Your task to perform on an android device: Go to Android settings Image 0: 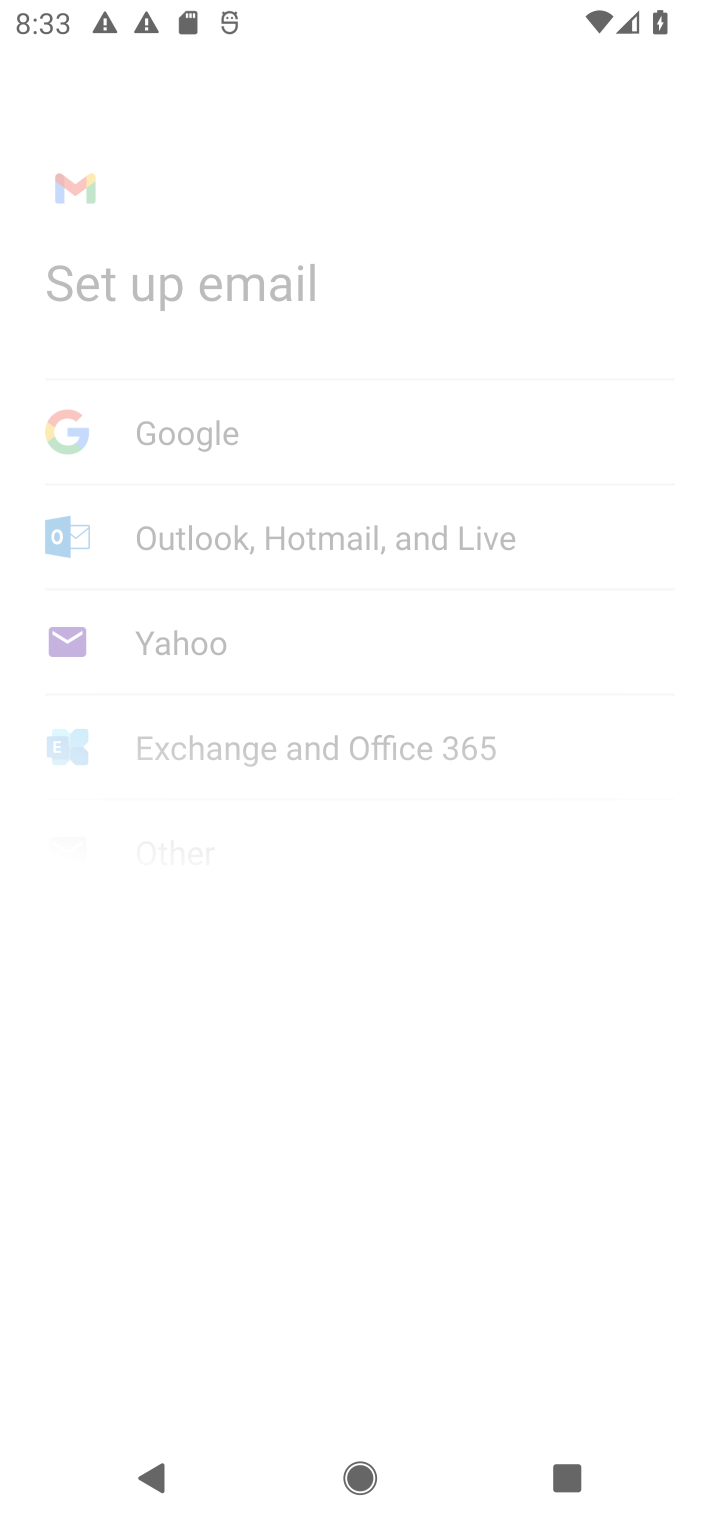
Step 0: press home button
Your task to perform on an android device: Go to Android settings Image 1: 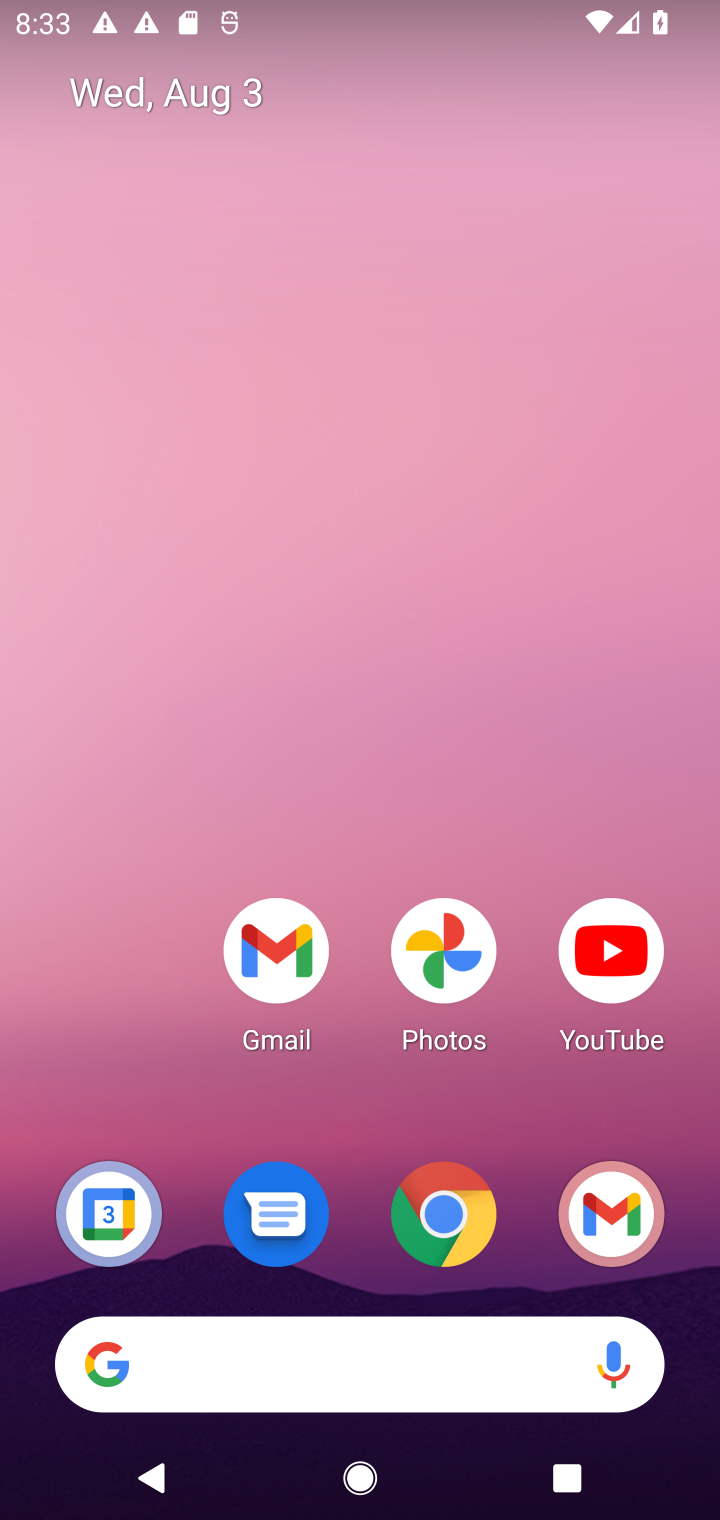
Step 1: drag from (342, 1146) to (269, 0)
Your task to perform on an android device: Go to Android settings Image 2: 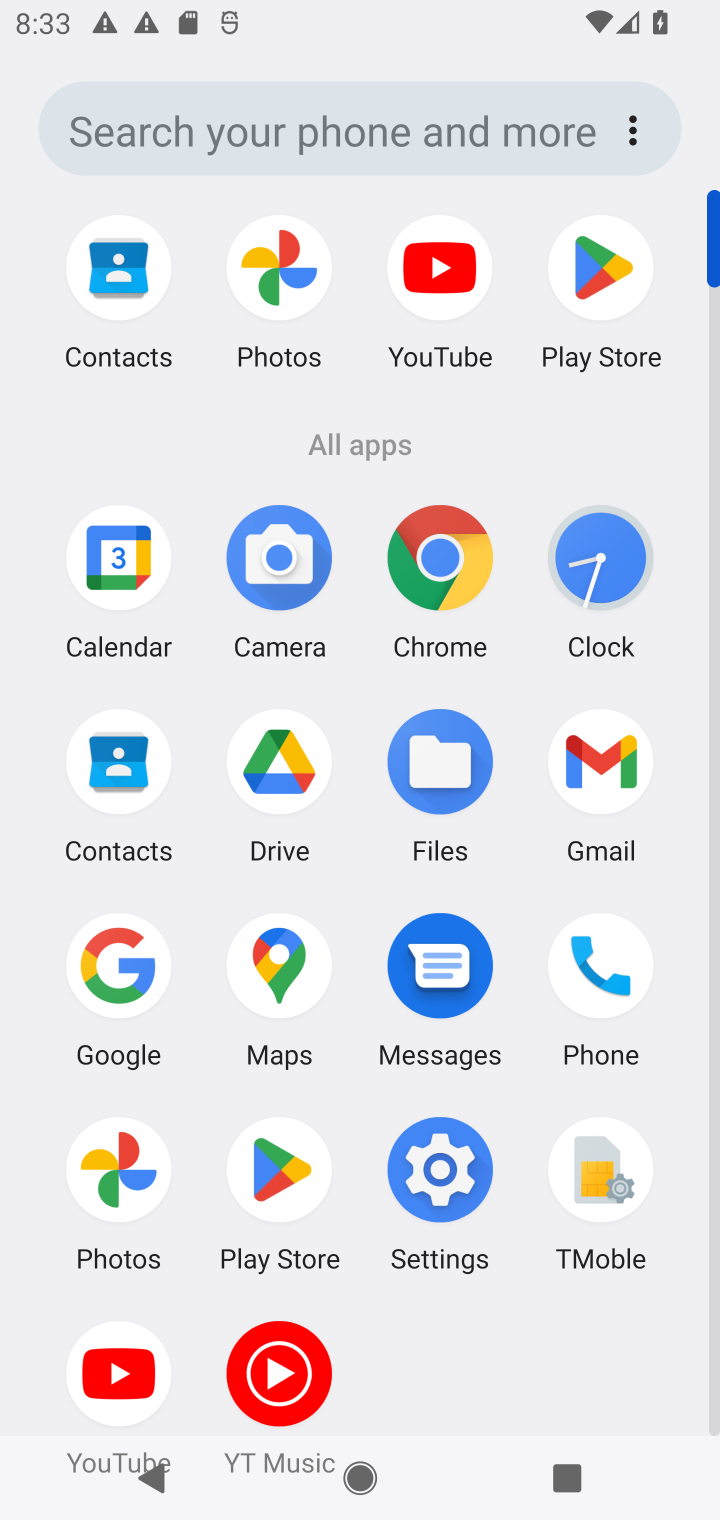
Step 2: click (430, 1180)
Your task to perform on an android device: Go to Android settings Image 3: 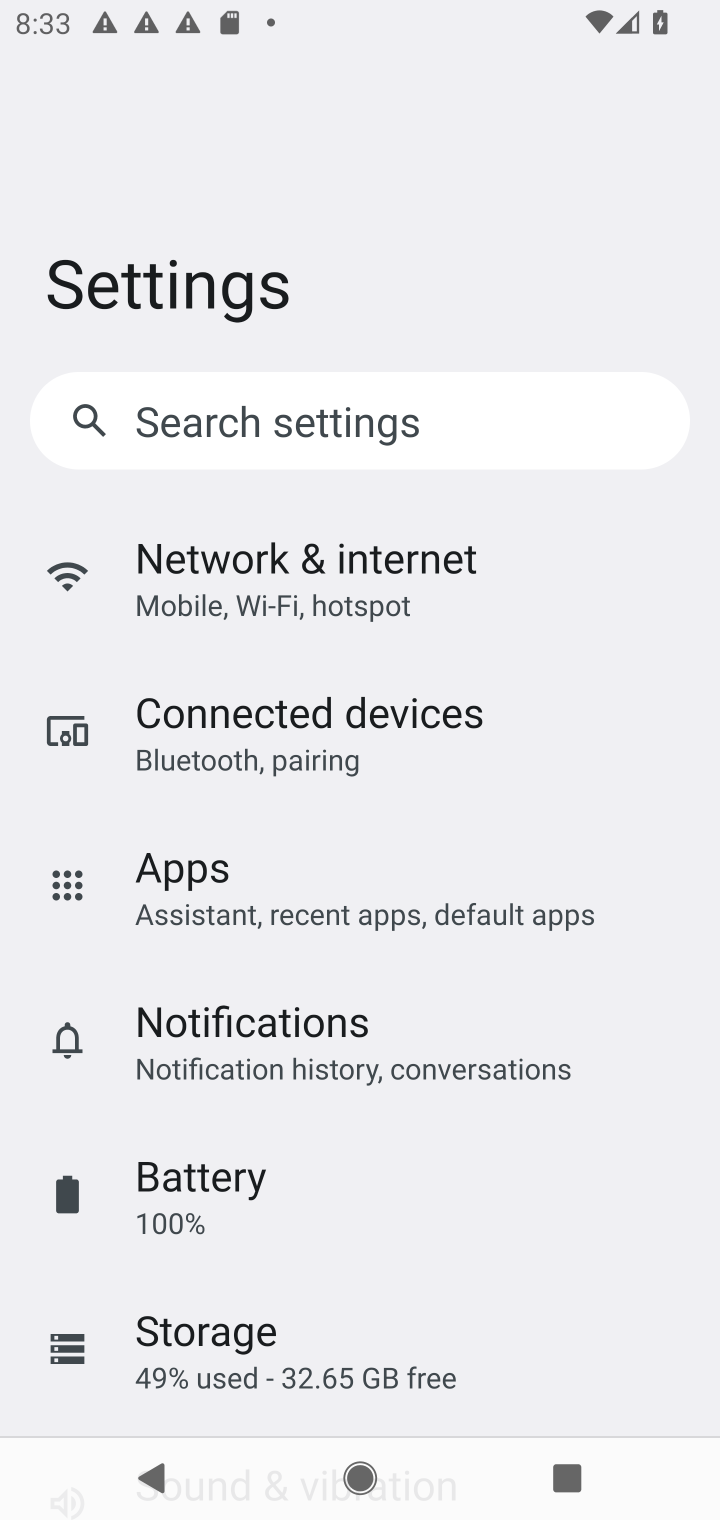
Step 3: drag from (284, 1186) to (382, 108)
Your task to perform on an android device: Go to Android settings Image 4: 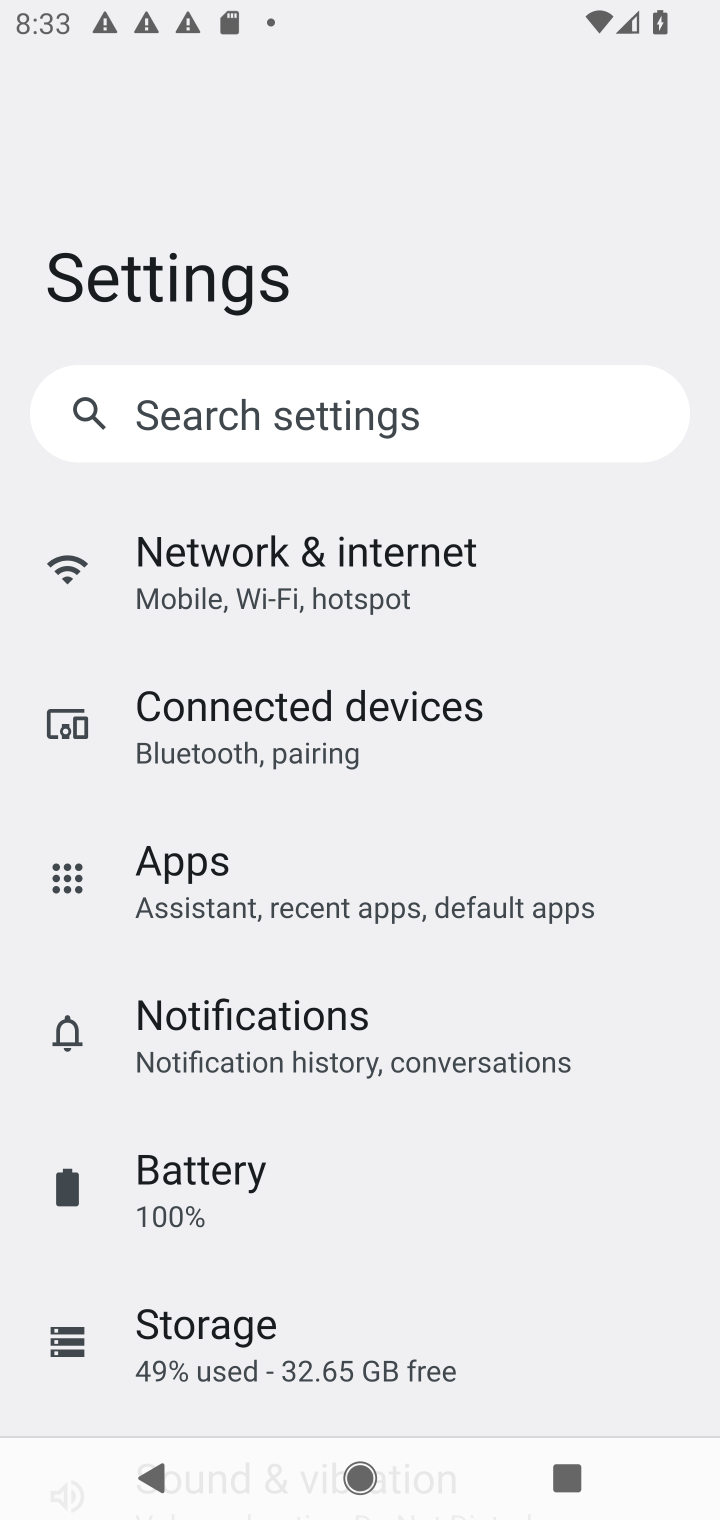
Step 4: drag from (471, 1053) to (491, 115)
Your task to perform on an android device: Go to Android settings Image 5: 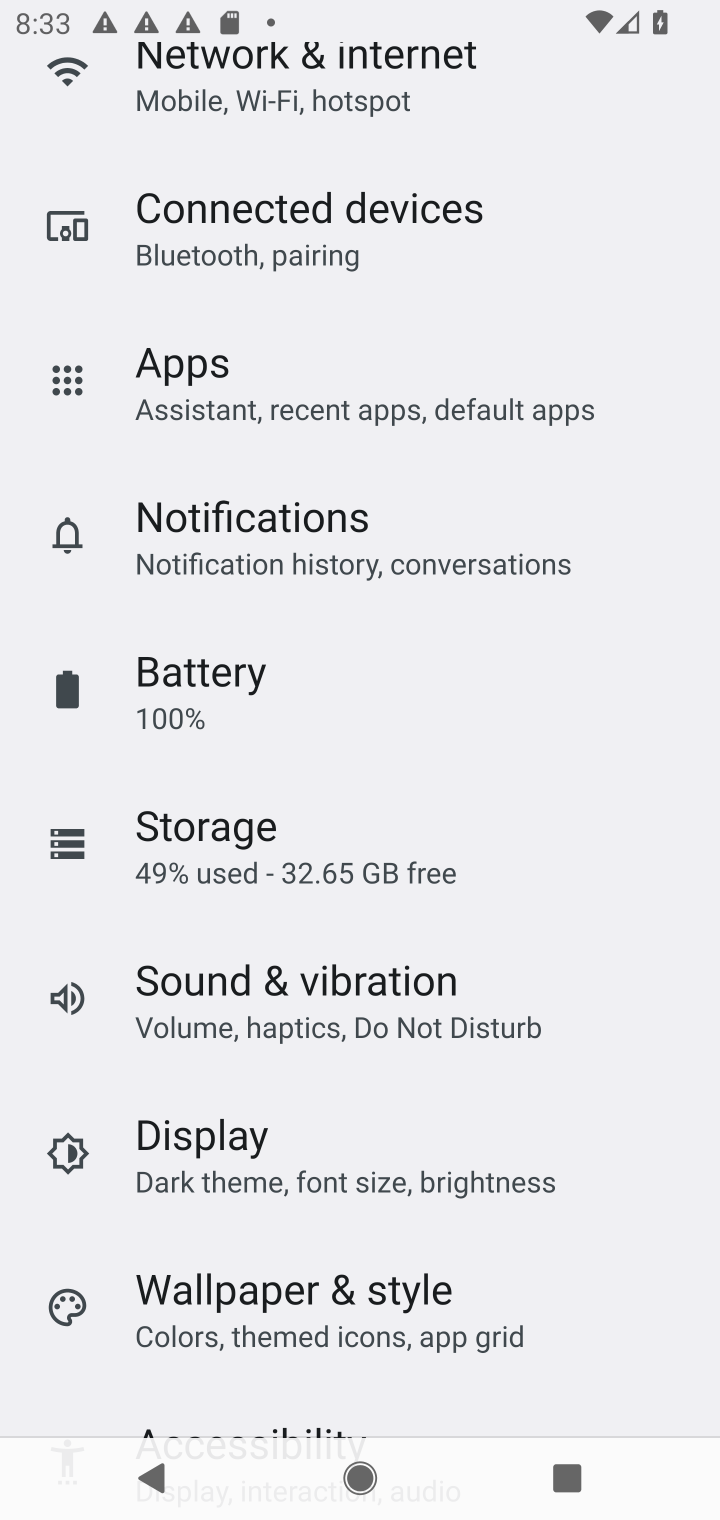
Step 5: drag from (509, 1058) to (512, 66)
Your task to perform on an android device: Go to Android settings Image 6: 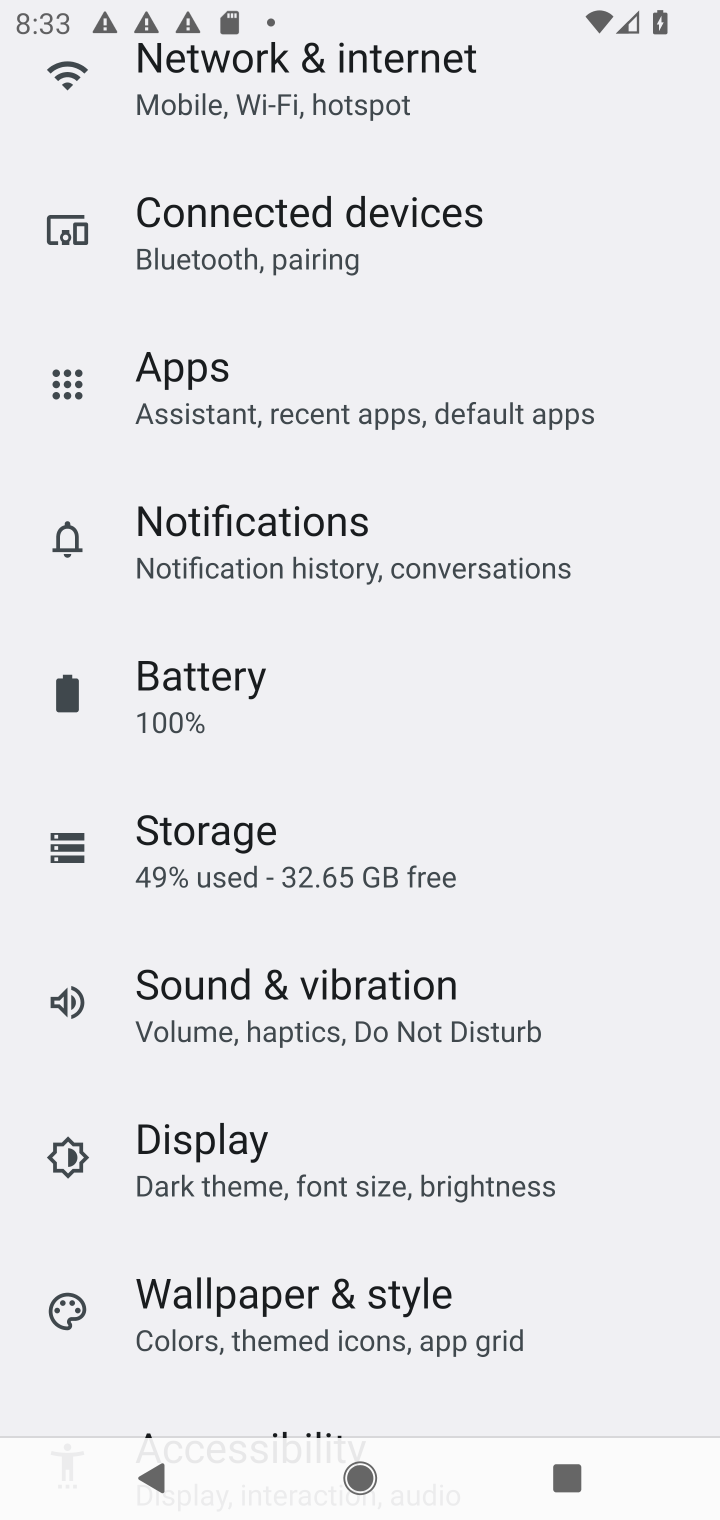
Step 6: drag from (360, 1170) to (399, 218)
Your task to perform on an android device: Go to Android settings Image 7: 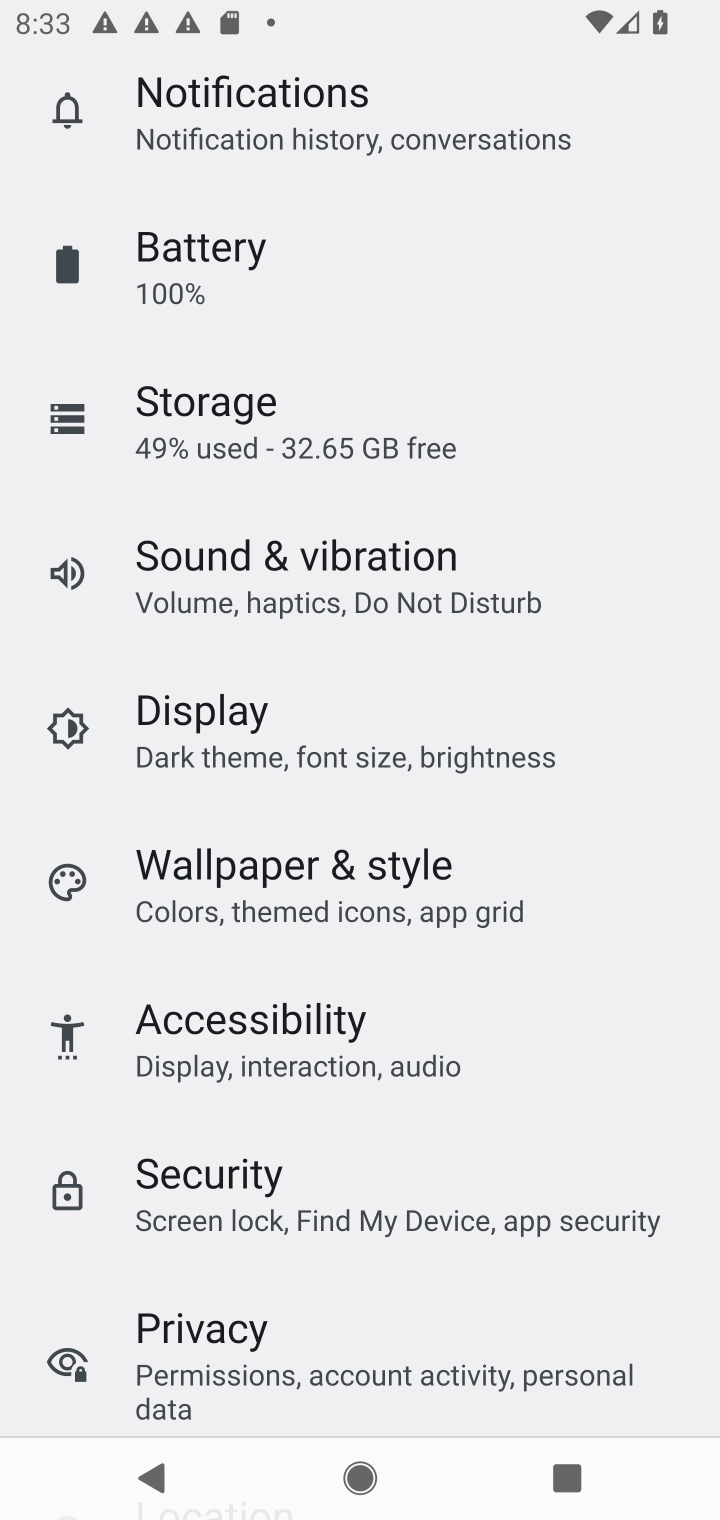
Step 7: drag from (299, 1189) to (375, 359)
Your task to perform on an android device: Go to Android settings Image 8: 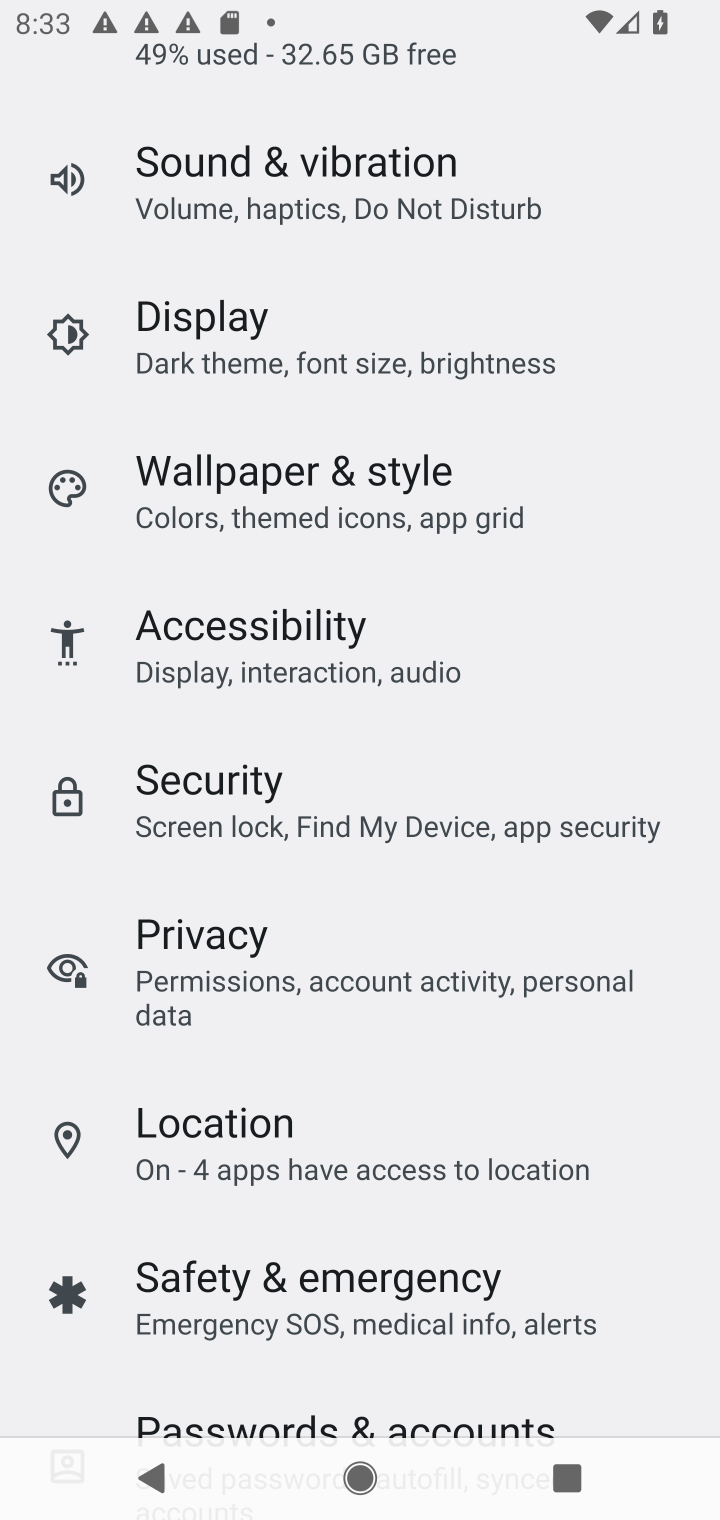
Step 8: drag from (389, 1120) to (287, 433)
Your task to perform on an android device: Go to Android settings Image 9: 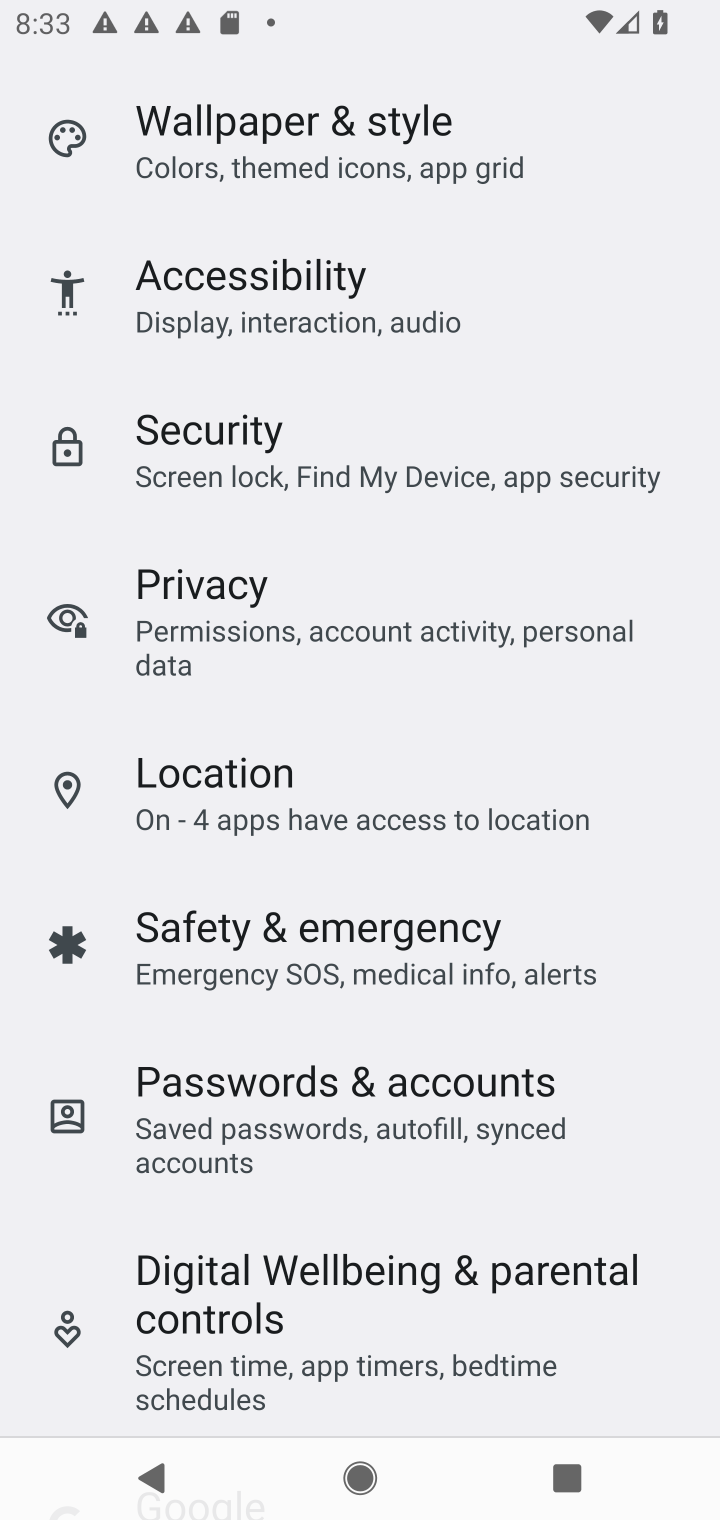
Step 9: drag from (285, 1173) to (340, 92)
Your task to perform on an android device: Go to Android settings Image 10: 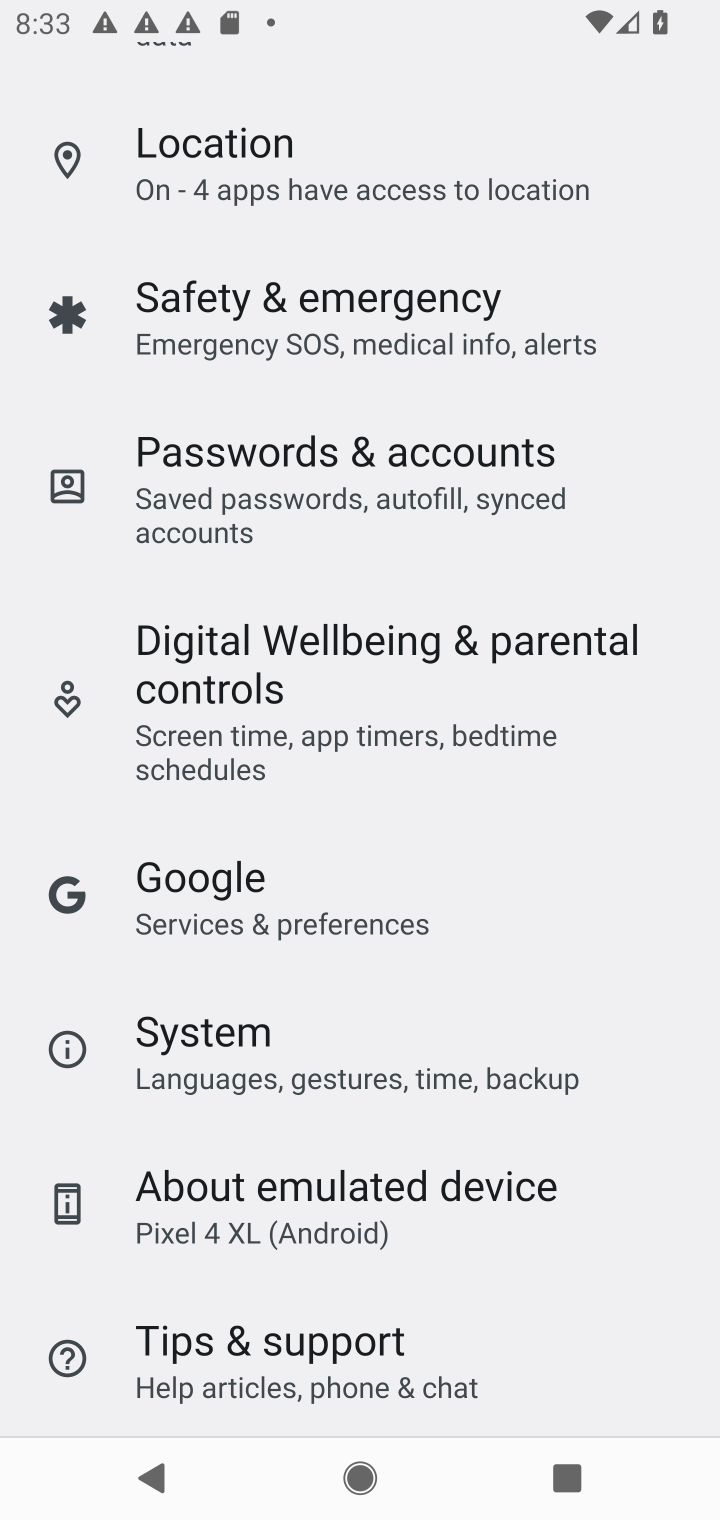
Step 10: click (349, 1063)
Your task to perform on an android device: Go to Android settings Image 11: 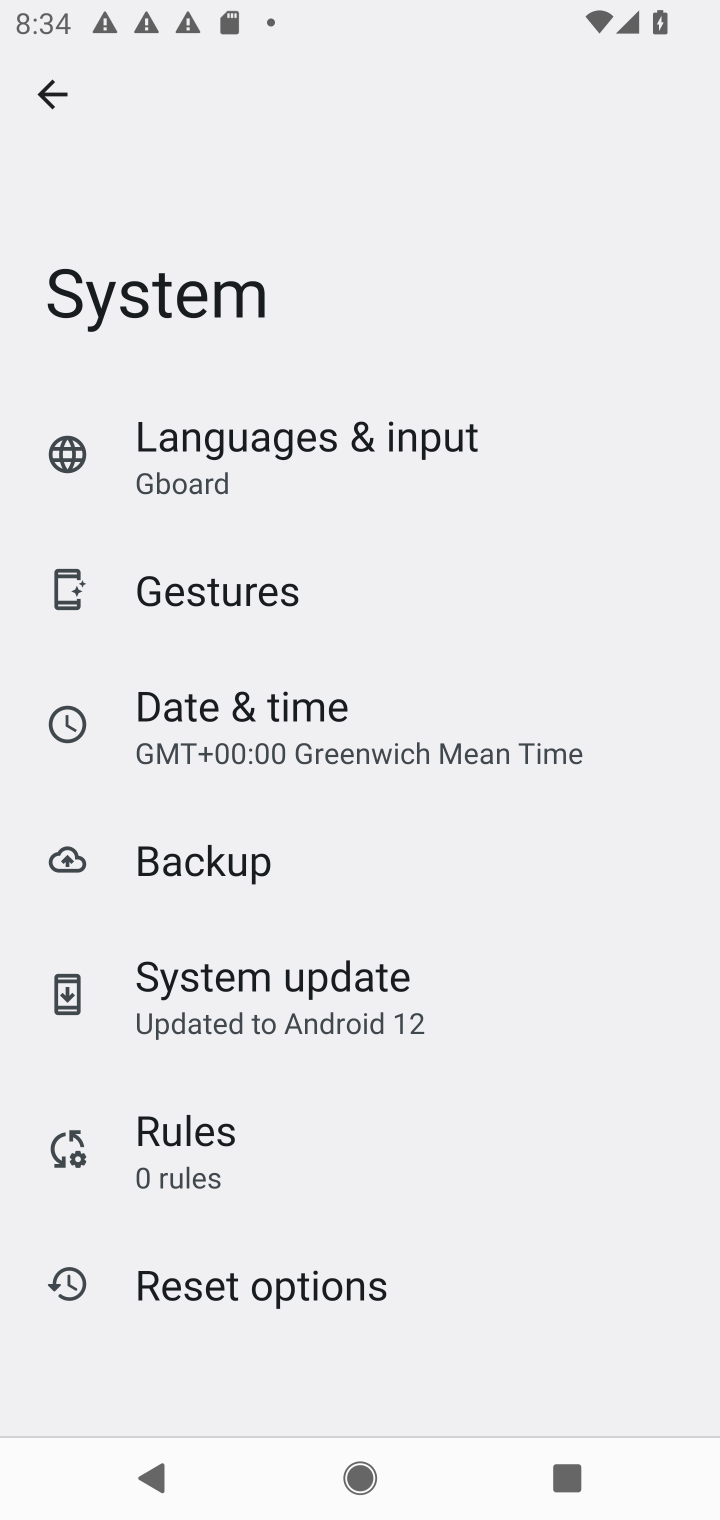
Step 11: task complete